Your task to perform on an android device: Open the web browser Image 0: 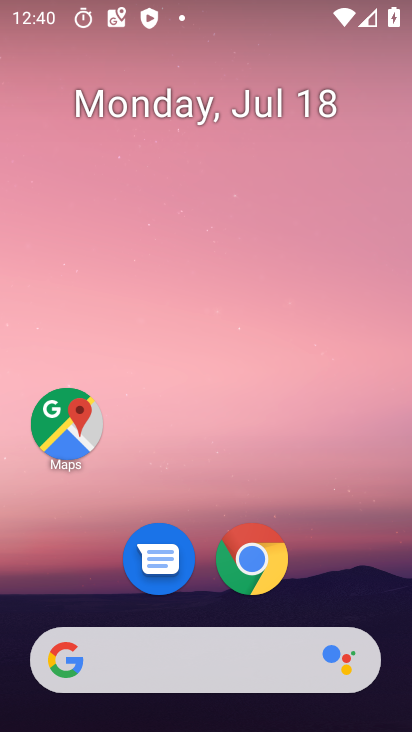
Step 0: click (238, 561)
Your task to perform on an android device: Open the web browser Image 1: 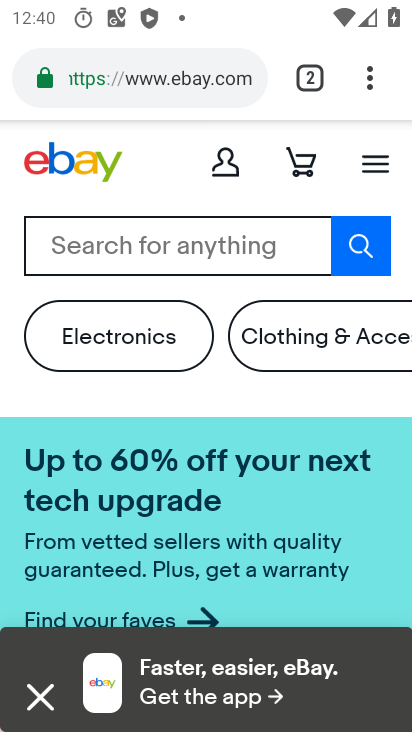
Step 1: task complete